Your task to perform on an android device: toggle location history Image 0: 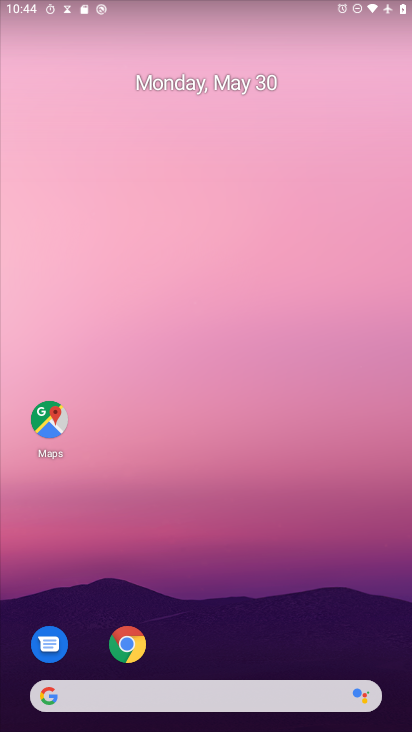
Step 0: drag from (223, 594) to (234, 45)
Your task to perform on an android device: toggle location history Image 1: 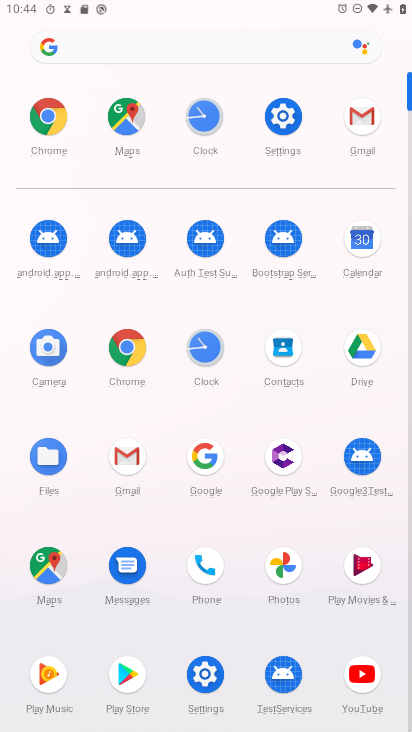
Step 1: click (282, 119)
Your task to perform on an android device: toggle location history Image 2: 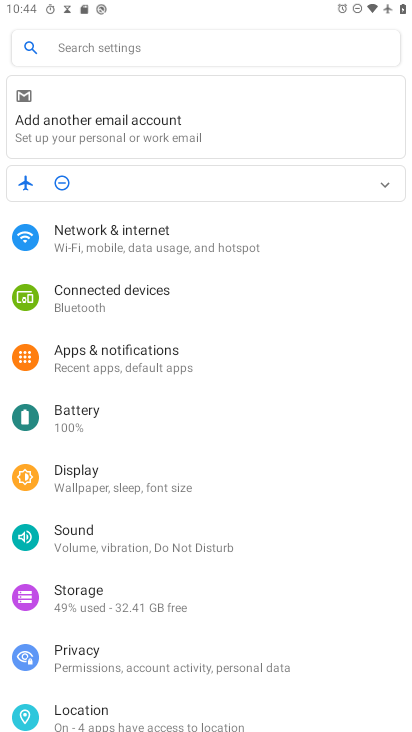
Step 2: drag from (135, 650) to (165, 246)
Your task to perform on an android device: toggle location history Image 3: 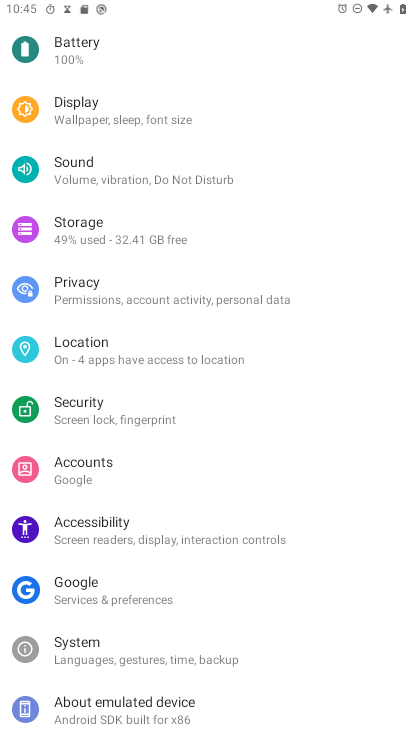
Step 3: click (113, 358)
Your task to perform on an android device: toggle location history Image 4: 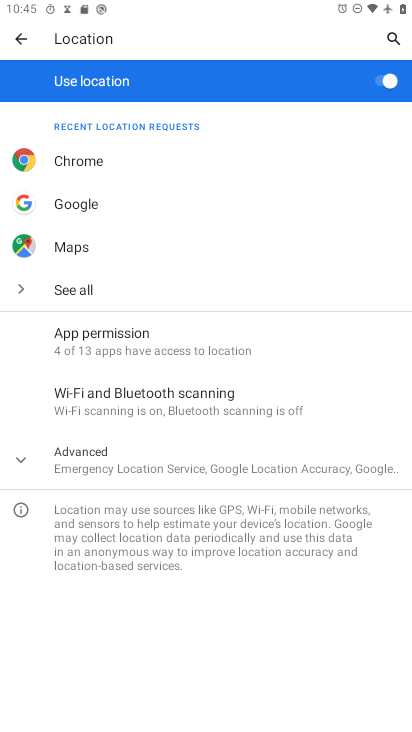
Step 4: task complete